Your task to perform on an android device: Open the calendar app, open the side menu, and click the "Day" option Image 0: 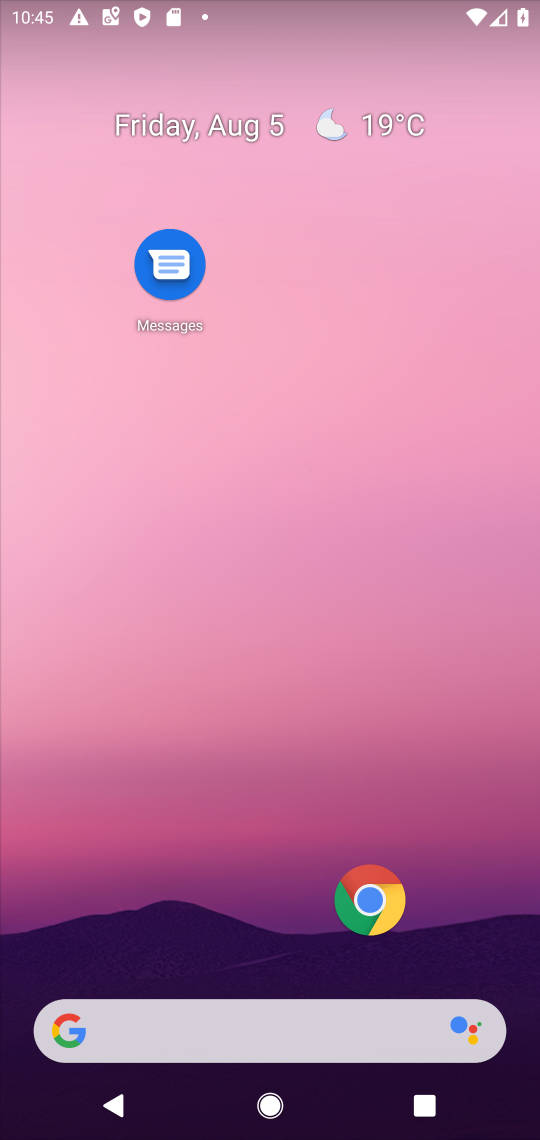
Step 0: press home button
Your task to perform on an android device: Open the calendar app, open the side menu, and click the "Day" option Image 1: 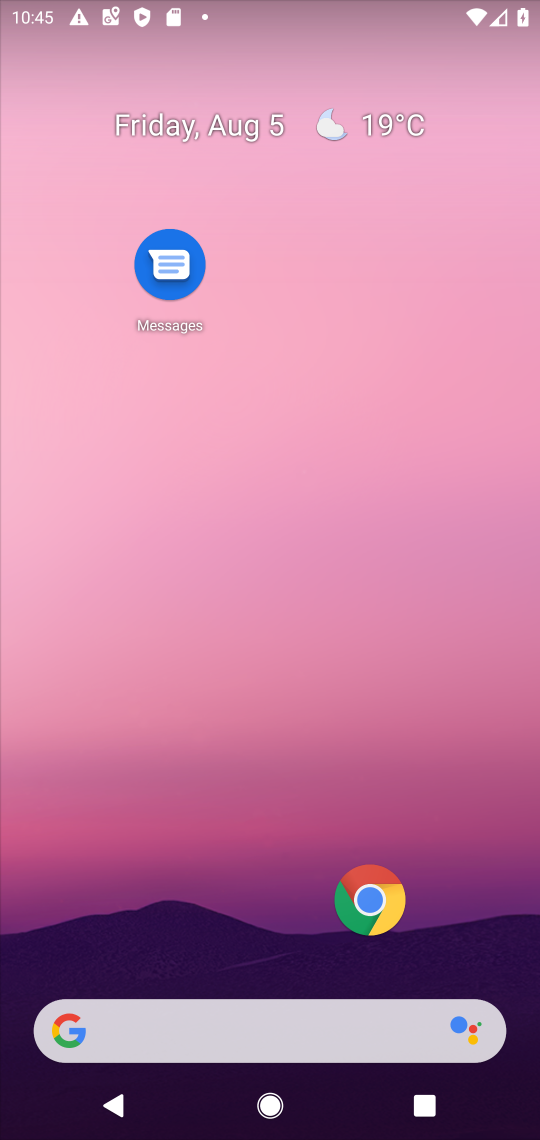
Step 1: press home button
Your task to perform on an android device: Open the calendar app, open the side menu, and click the "Day" option Image 2: 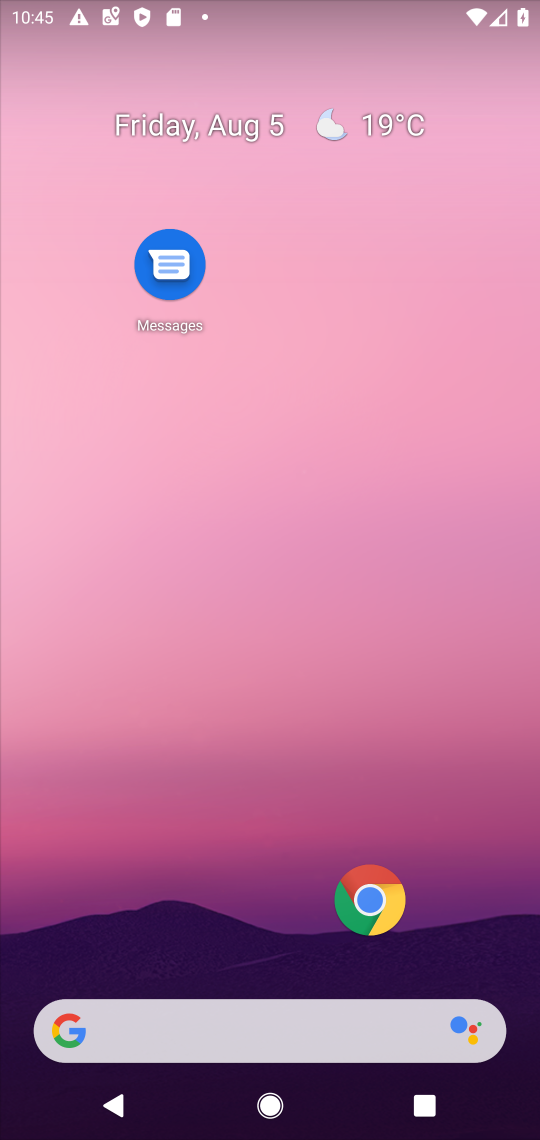
Step 2: press home button
Your task to perform on an android device: Open the calendar app, open the side menu, and click the "Day" option Image 3: 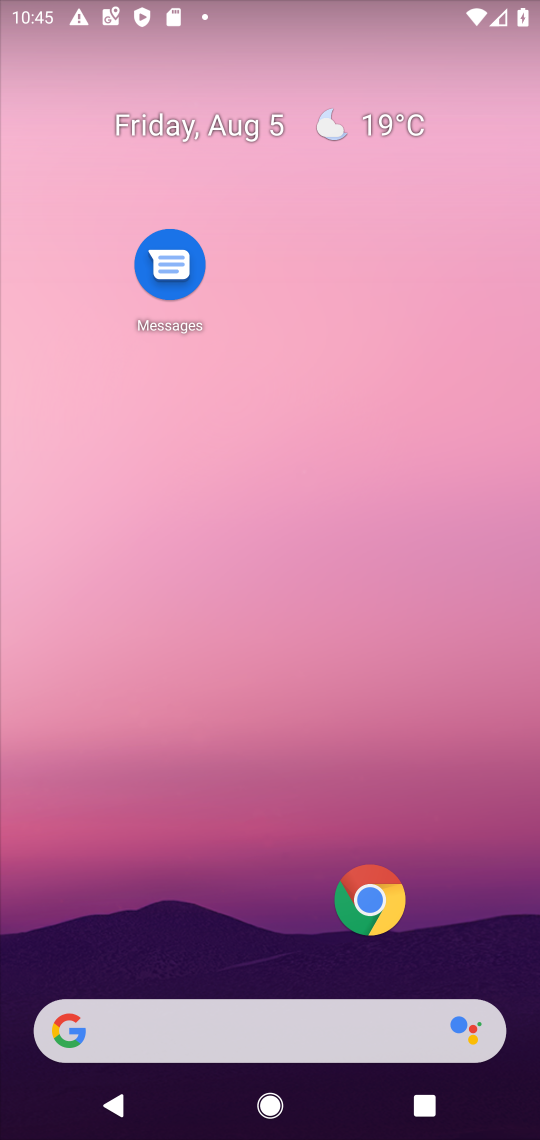
Step 3: press home button
Your task to perform on an android device: Open the calendar app, open the side menu, and click the "Day" option Image 4: 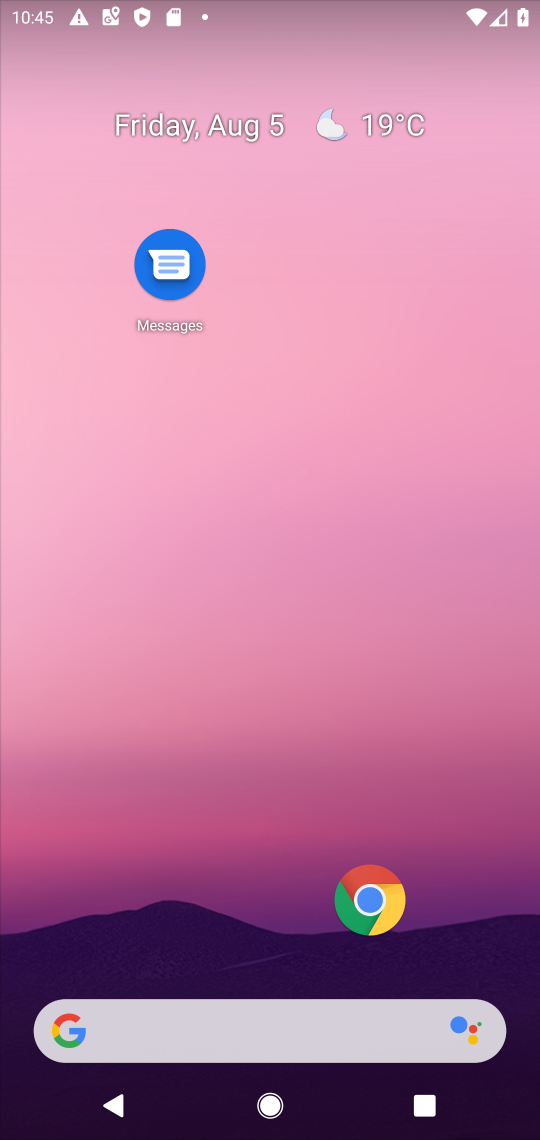
Step 4: press home button
Your task to perform on an android device: Open the calendar app, open the side menu, and click the "Day" option Image 5: 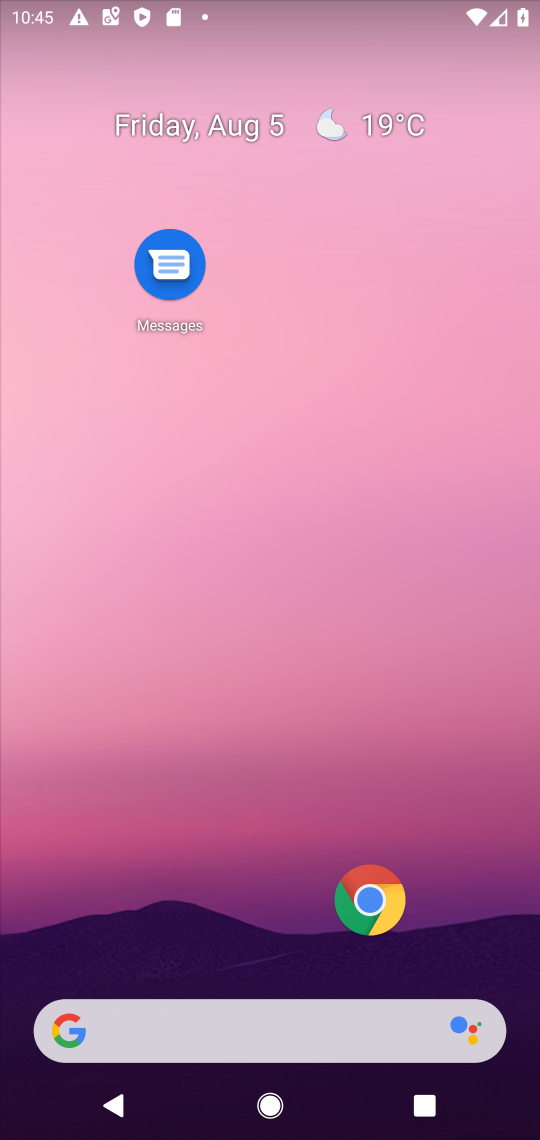
Step 5: press home button
Your task to perform on an android device: Open the calendar app, open the side menu, and click the "Day" option Image 6: 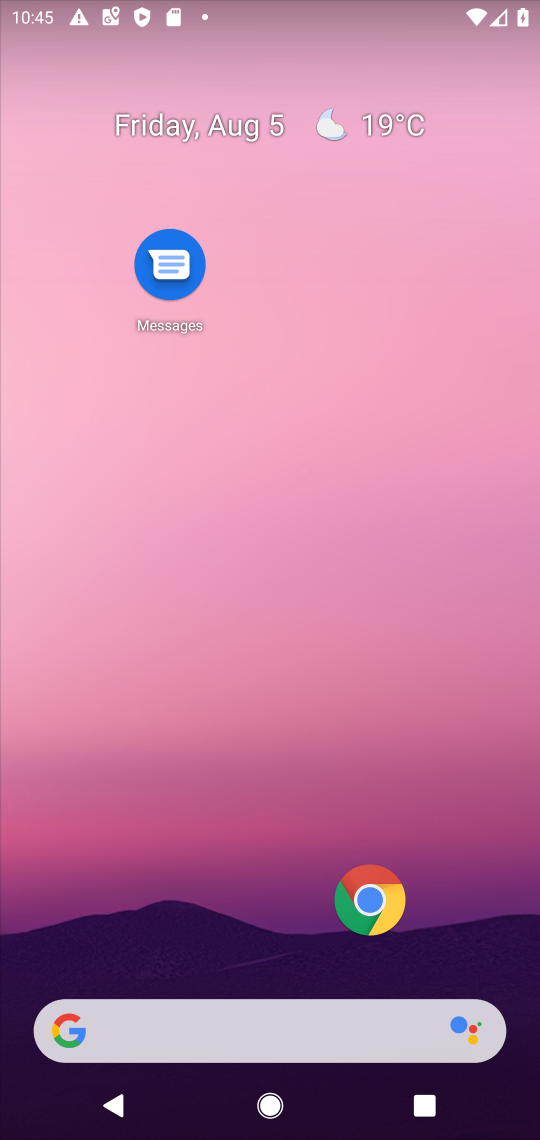
Step 6: drag from (264, 1010) to (136, 117)
Your task to perform on an android device: Open the calendar app, open the side menu, and click the "Day" option Image 7: 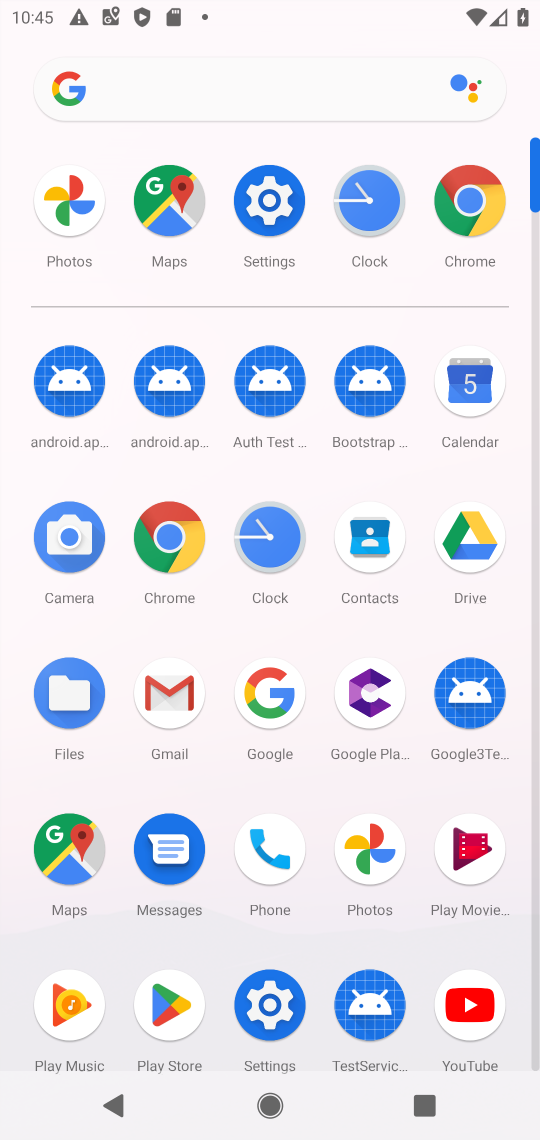
Step 7: click (492, 392)
Your task to perform on an android device: Open the calendar app, open the side menu, and click the "Day" option Image 8: 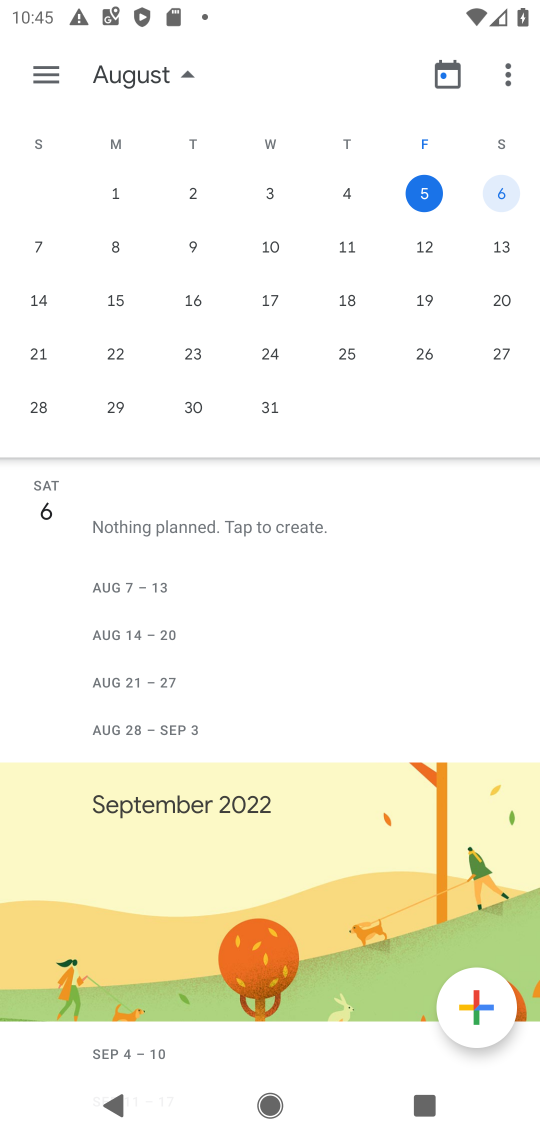
Step 8: click (50, 90)
Your task to perform on an android device: Open the calendar app, open the side menu, and click the "Day" option Image 9: 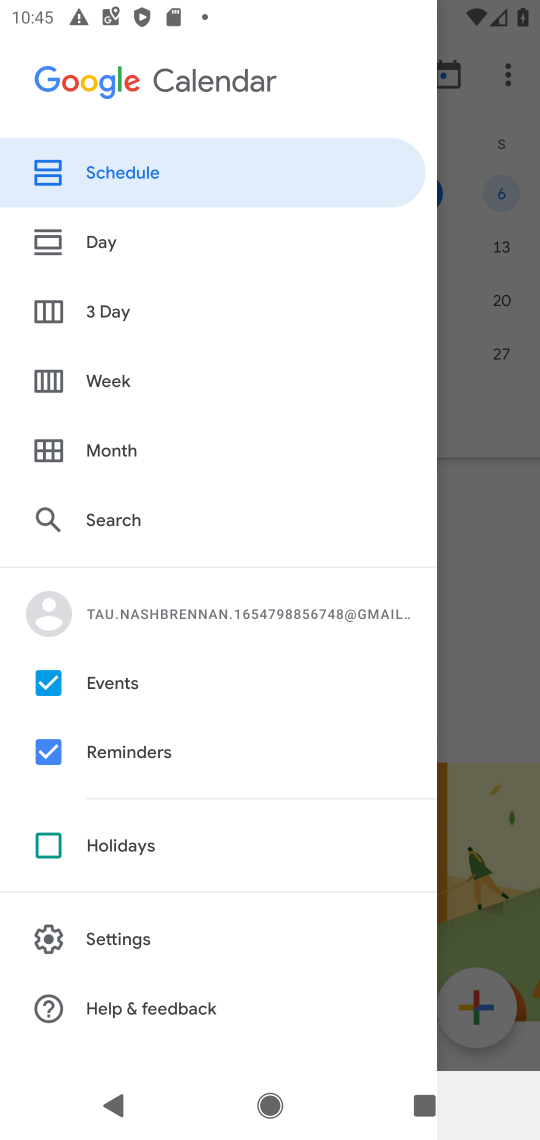
Step 9: click (81, 229)
Your task to perform on an android device: Open the calendar app, open the side menu, and click the "Day" option Image 10: 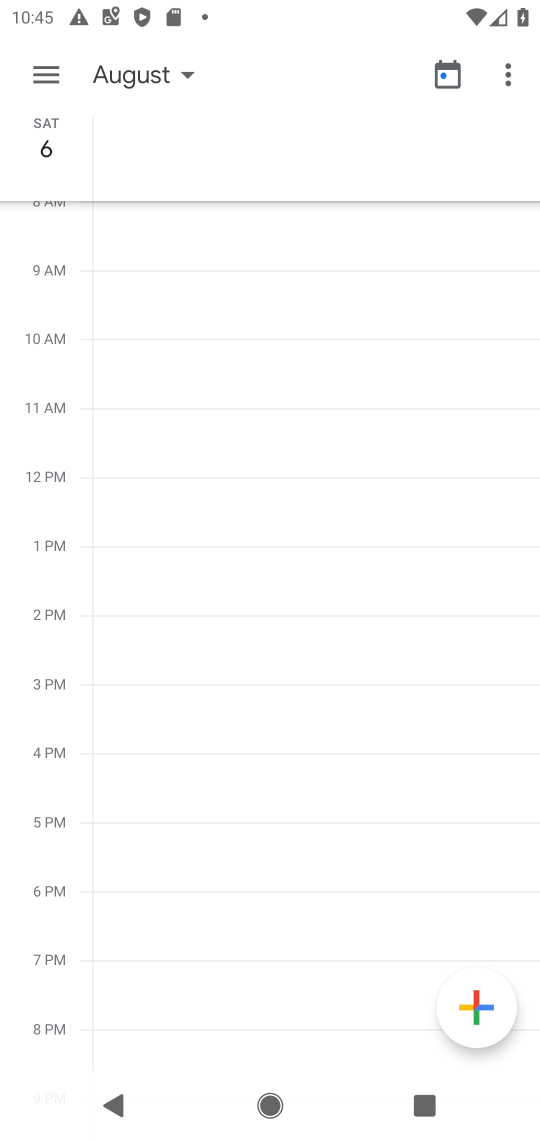
Step 10: task complete